Your task to perform on an android device: turn off airplane mode Image 0: 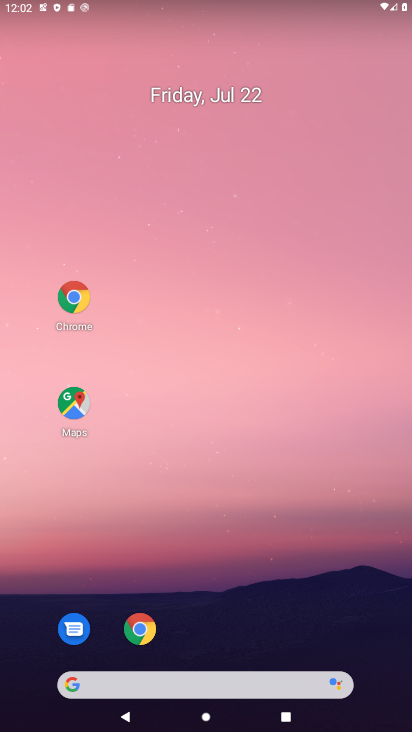
Step 0: drag from (184, 199) to (143, 83)
Your task to perform on an android device: turn off airplane mode Image 1: 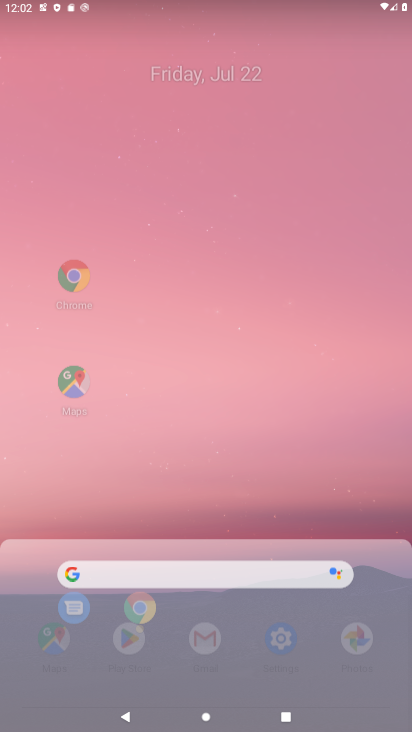
Step 1: drag from (152, 166) to (185, 127)
Your task to perform on an android device: turn off airplane mode Image 2: 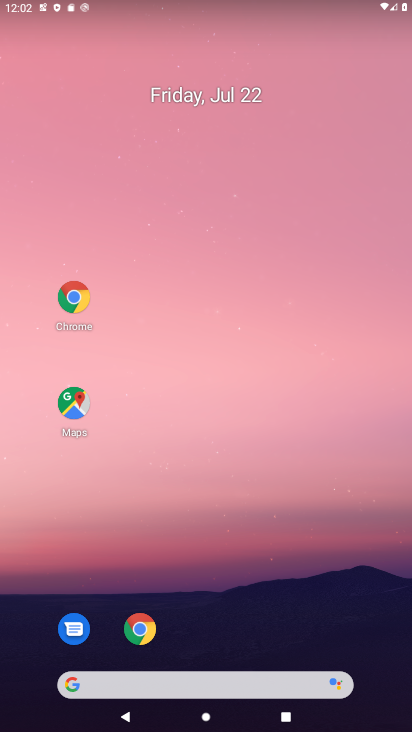
Step 2: drag from (243, 597) to (237, 192)
Your task to perform on an android device: turn off airplane mode Image 3: 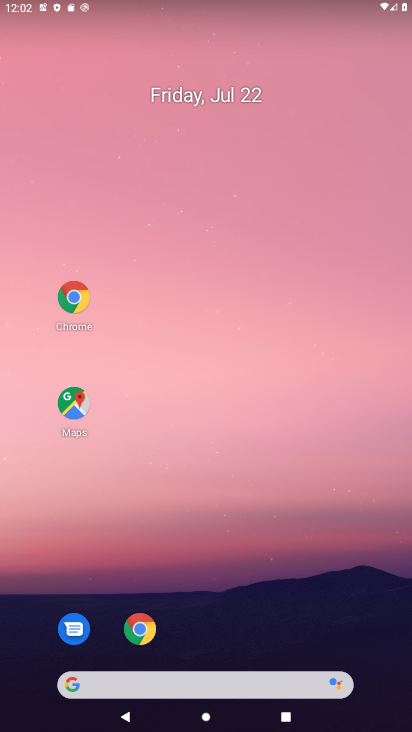
Step 3: drag from (230, 573) to (225, 132)
Your task to perform on an android device: turn off airplane mode Image 4: 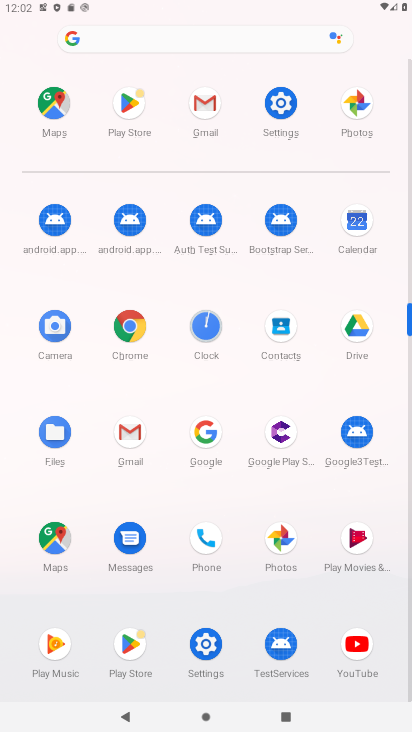
Step 4: drag from (223, 488) to (224, 193)
Your task to perform on an android device: turn off airplane mode Image 5: 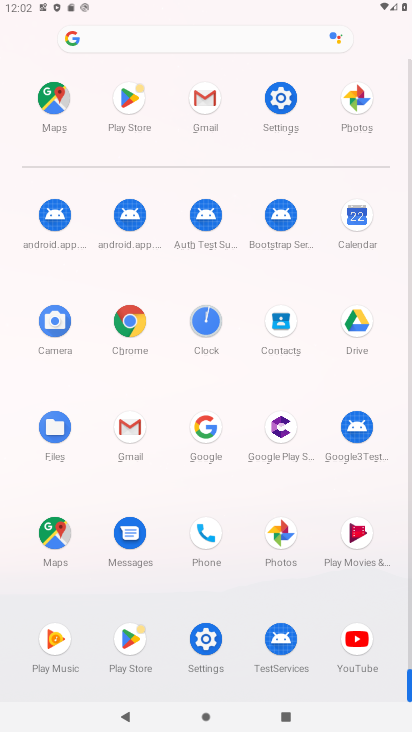
Step 5: click (276, 100)
Your task to perform on an android device: turn off airplane mode Image 6: 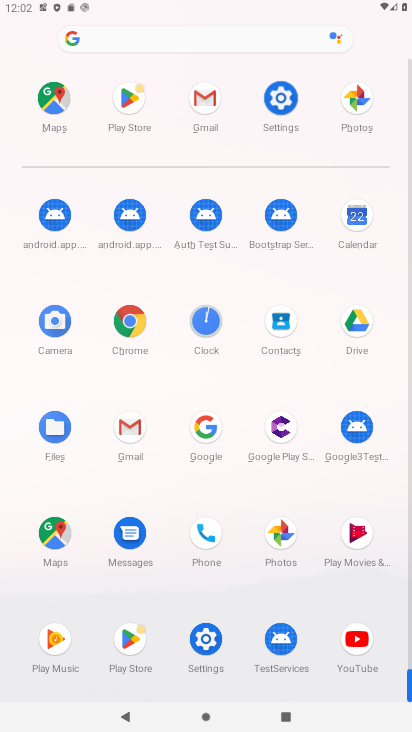
Step 6: click (276, 100)
Your task to perform on an android device: turn off airplane mode Image 7: 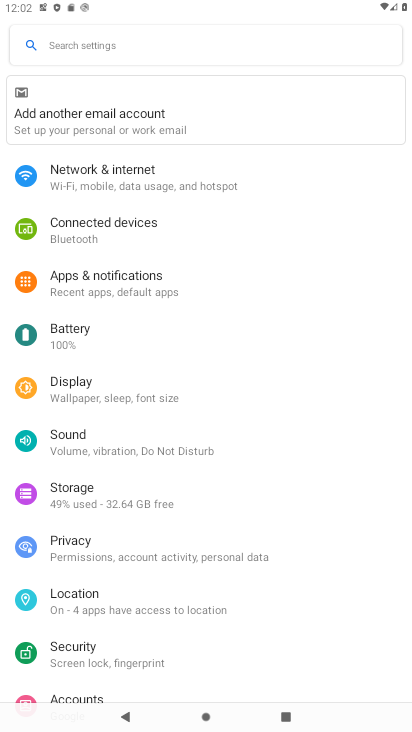
Step 7: click (111, 182)
Your task to perform on an android device: turn off airplane mode Image 8: 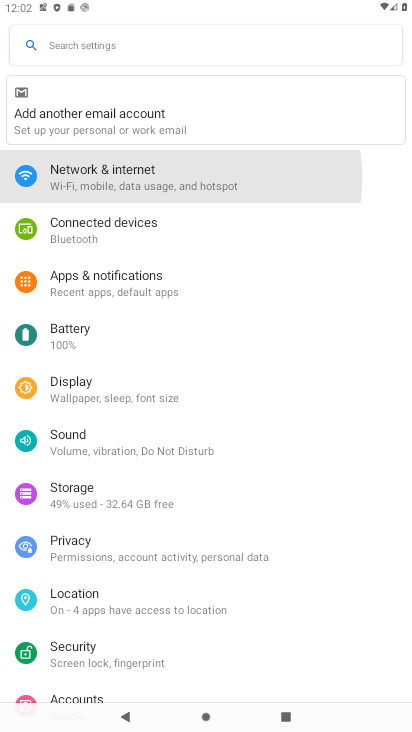
Step 8: click (110, 183)
Your task to perform on an android device: turn off airplane mode Image 9: 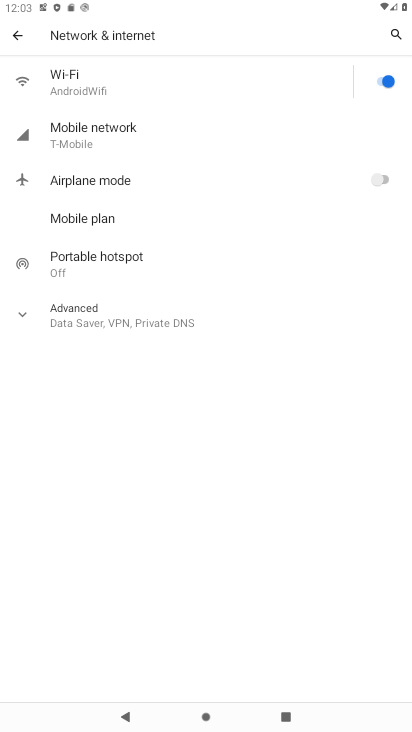
Step 9: task complete